Your task to perform on an android device: change alarm snooze length Image 0: 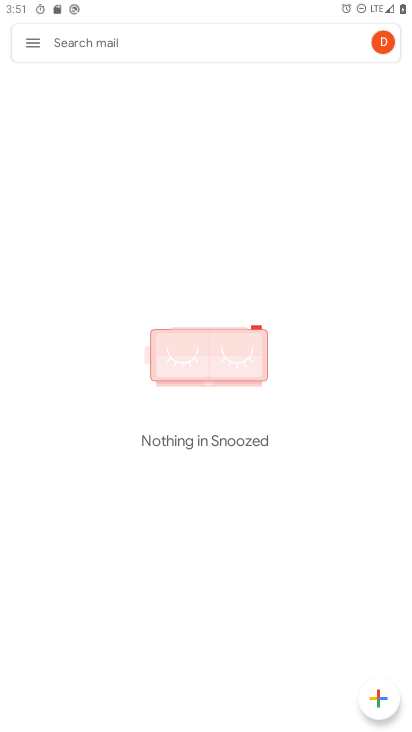
Step 0: press home button
Your task to perform on an android device: change alarm snooze length Image 1: 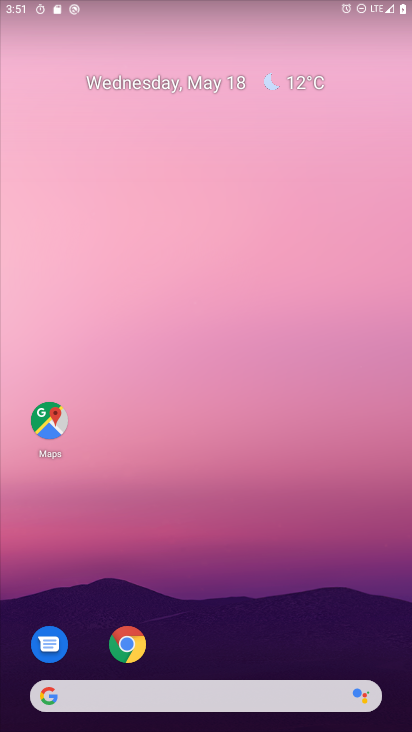
Step 1: drag from (391, 412) to (405, 239)
Your task to perform on an android device: change alarm snooze length Image 2: 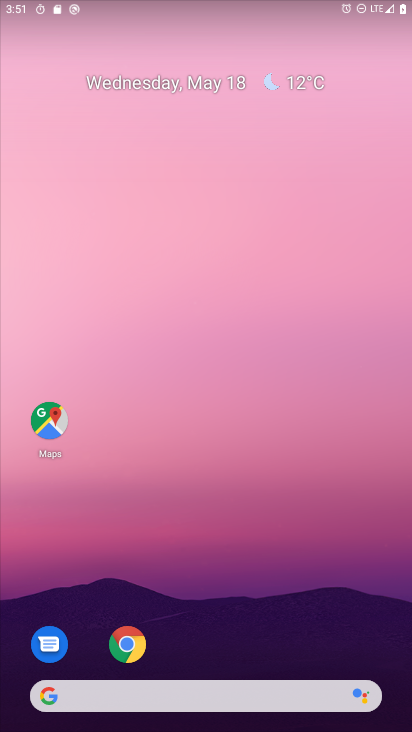
Step 2: drag from (401, 703) to (368, 137)
Your task to perform on an android device: change alarm snooze length Image 3: 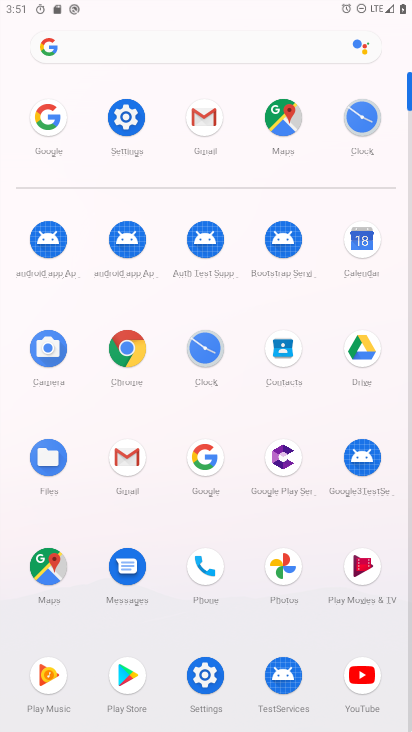
Step 3: click (197, 342)
Your task to perform on an android device: change alarm snooze length Image 4: 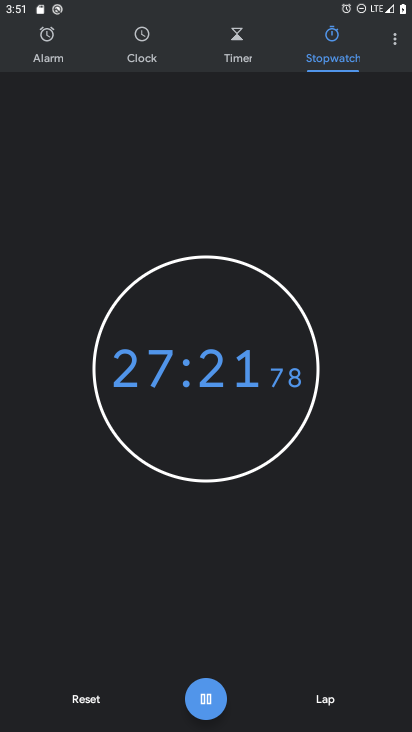
Step 4: click (395, 39)
Your task to perform on an android device: change alarm snooze length Image 5: 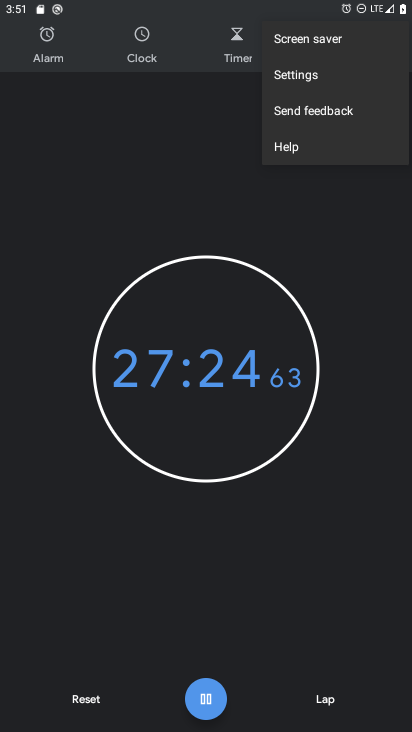
Step 5: click (294, 73)
Your task to perform on an android device: change alarm snooze length Image 6: 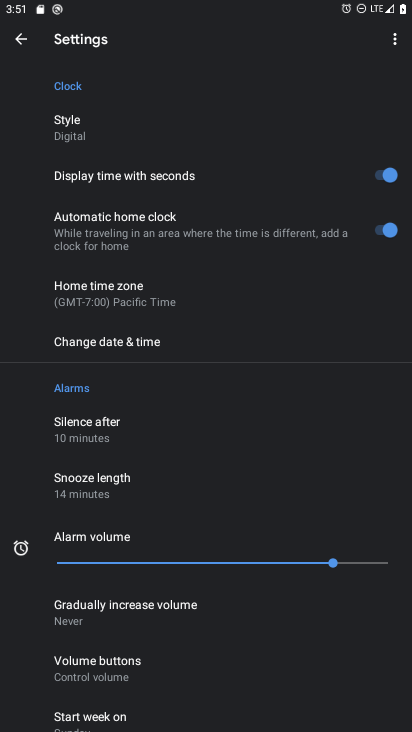
Step 6: click (86, 486)
Your task to perform on an android device: change alarm snooze length Image 7: 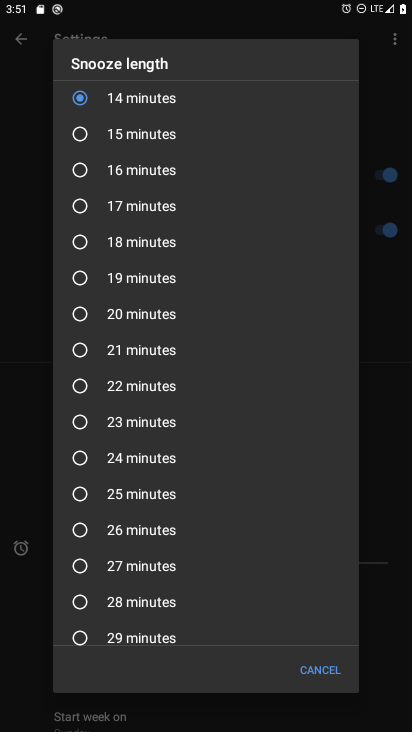
Step 7: click (76, 392)
Your task to perform on an android device: change alarm snooze length Image 8: 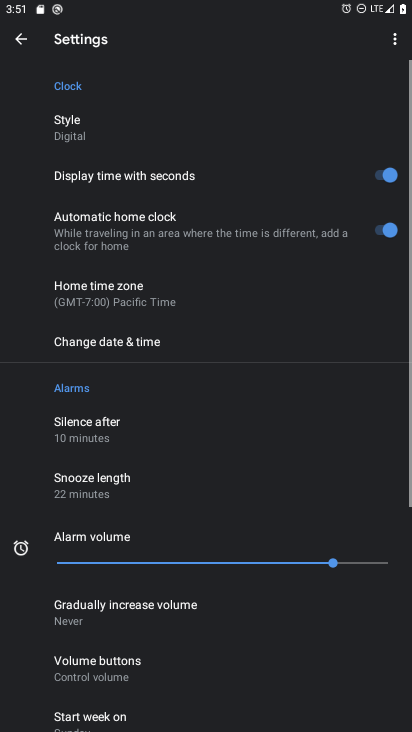
Step 8: task complete